Your task to perform on an android device: Go to Maps Image 0: 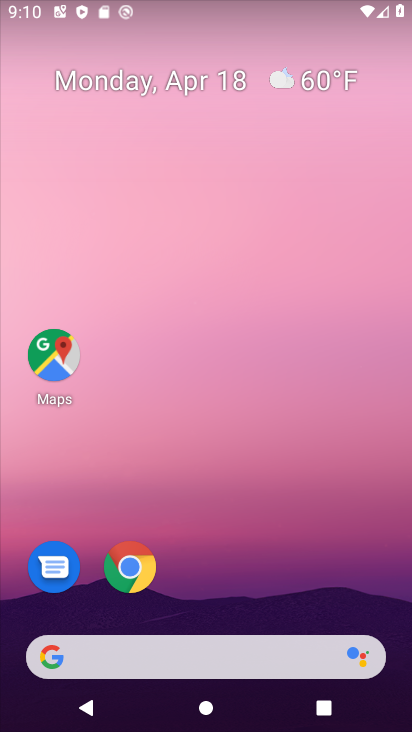
Step 0: click (50, 349)
Your task to perform on an android device: Go to Maps Image 1: 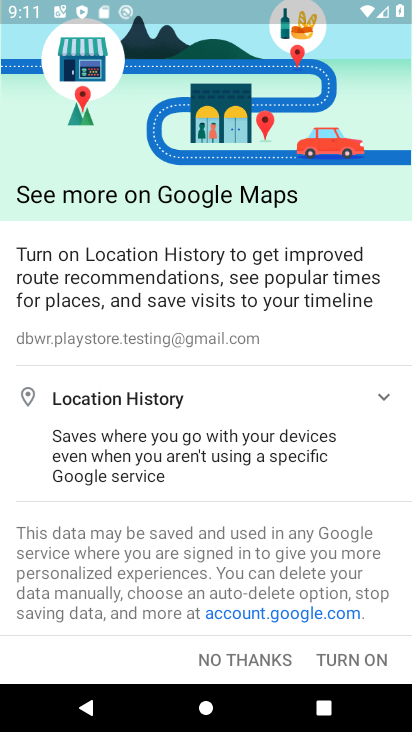
Step 1: click (364, 658)
Your task to perform on an android device: Go to Maps Image 2: 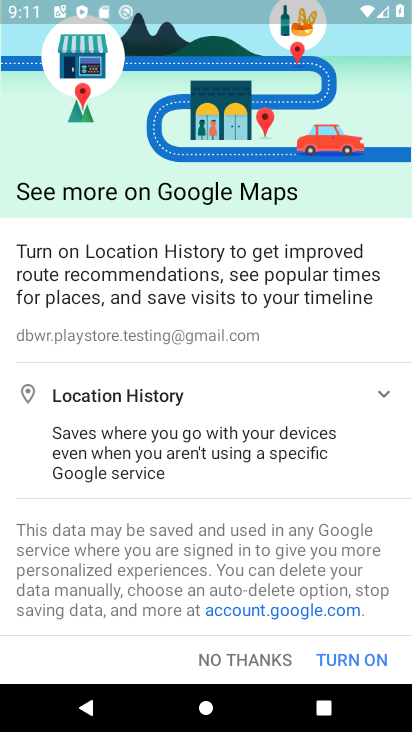
Step 2: click (364, 658)
Your task to perform on an android device: Go to Maps Image 3: 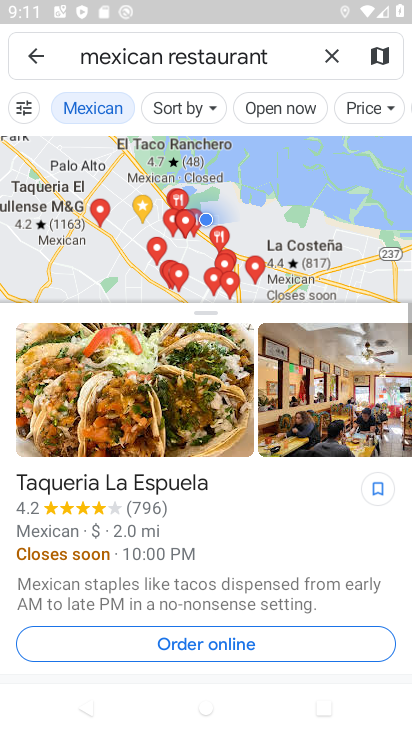
Step 3: task complete